Your task to perform on an android device: Search for "jbl flip 4" on ebay, select the first entry, add it to the cart, then select checkout. Image 0: 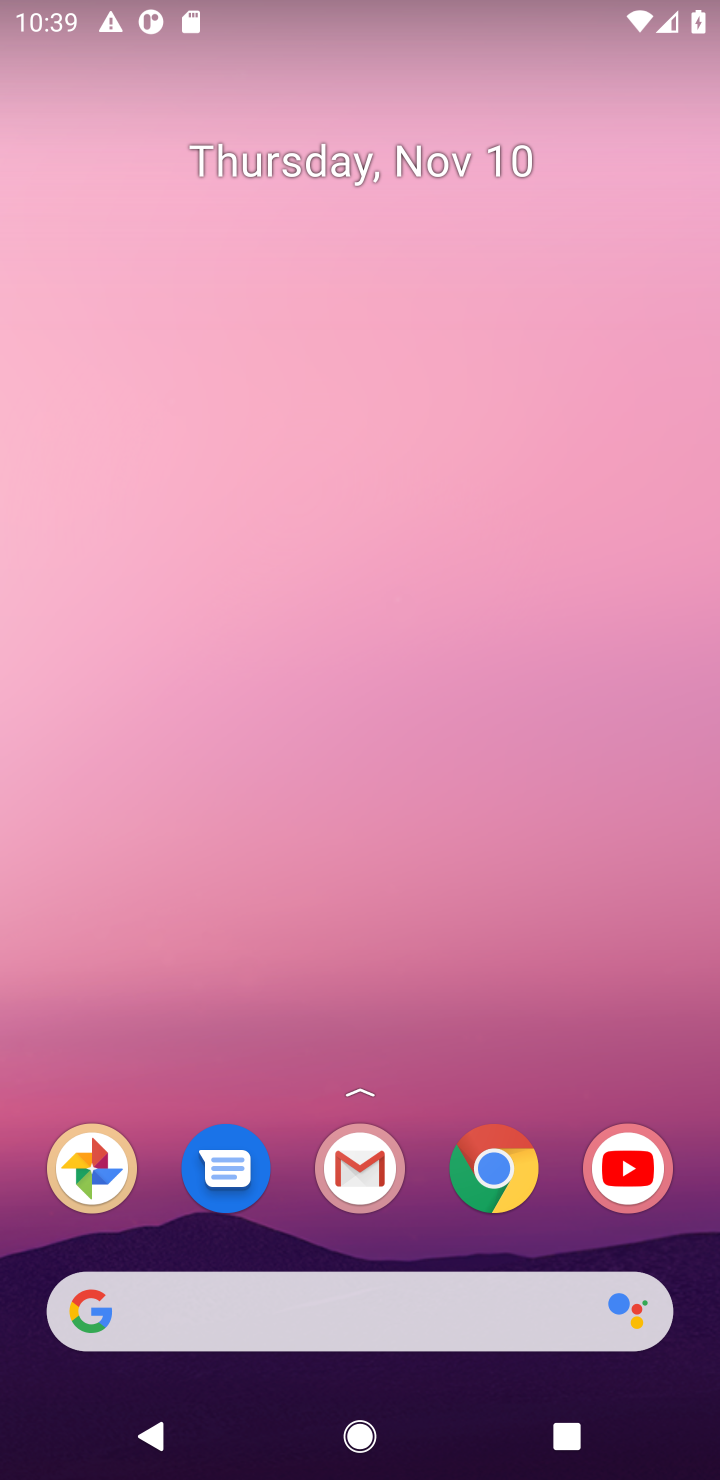
Step 0: click (477, 1169)
Your task to perform on an android device: Search for "jbl flip 4" on ebay, select the first entry, add it to the cart, then select checkout. Image 1: 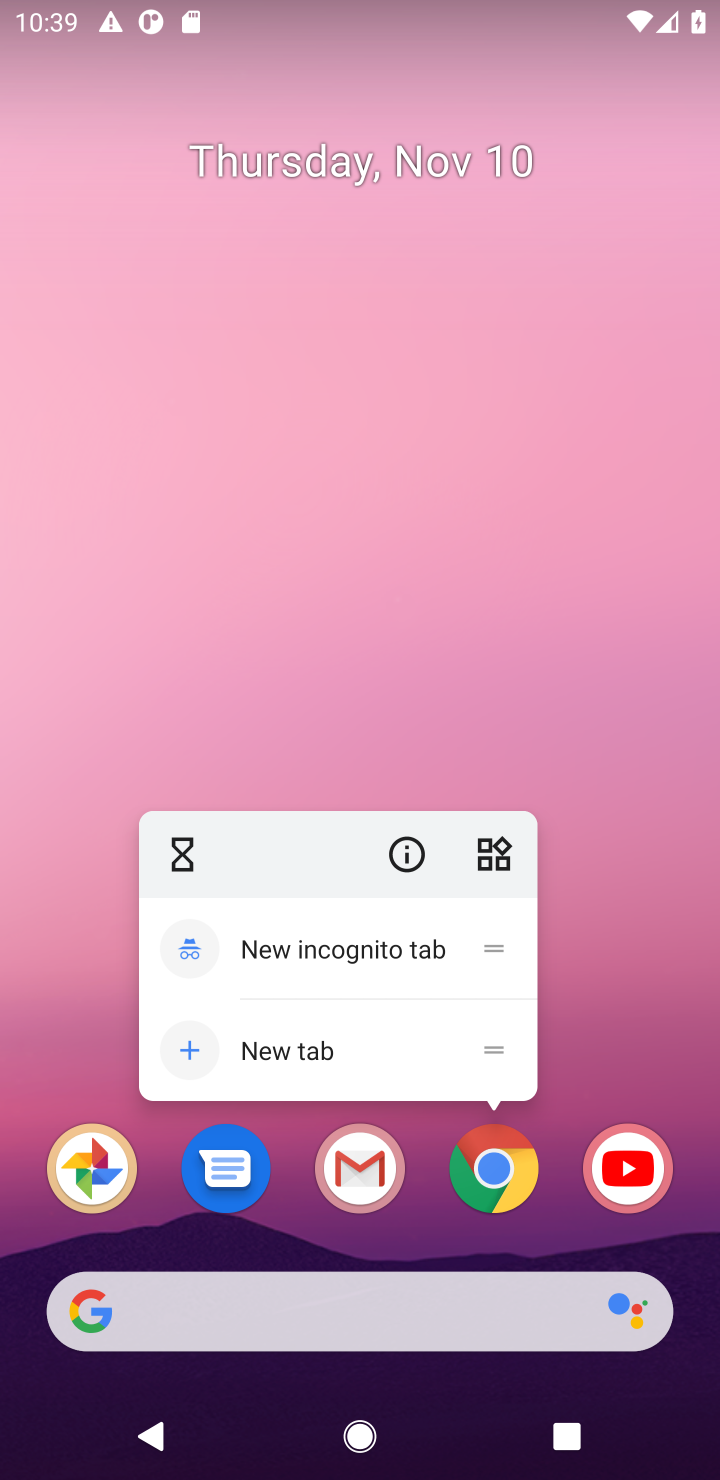
Step 1: click (489, 1180)
Your task to perform on an android device: Search for "jbl flip 4" on ebay, select the first entry, add it to the cart, then select checkout. Image 2: 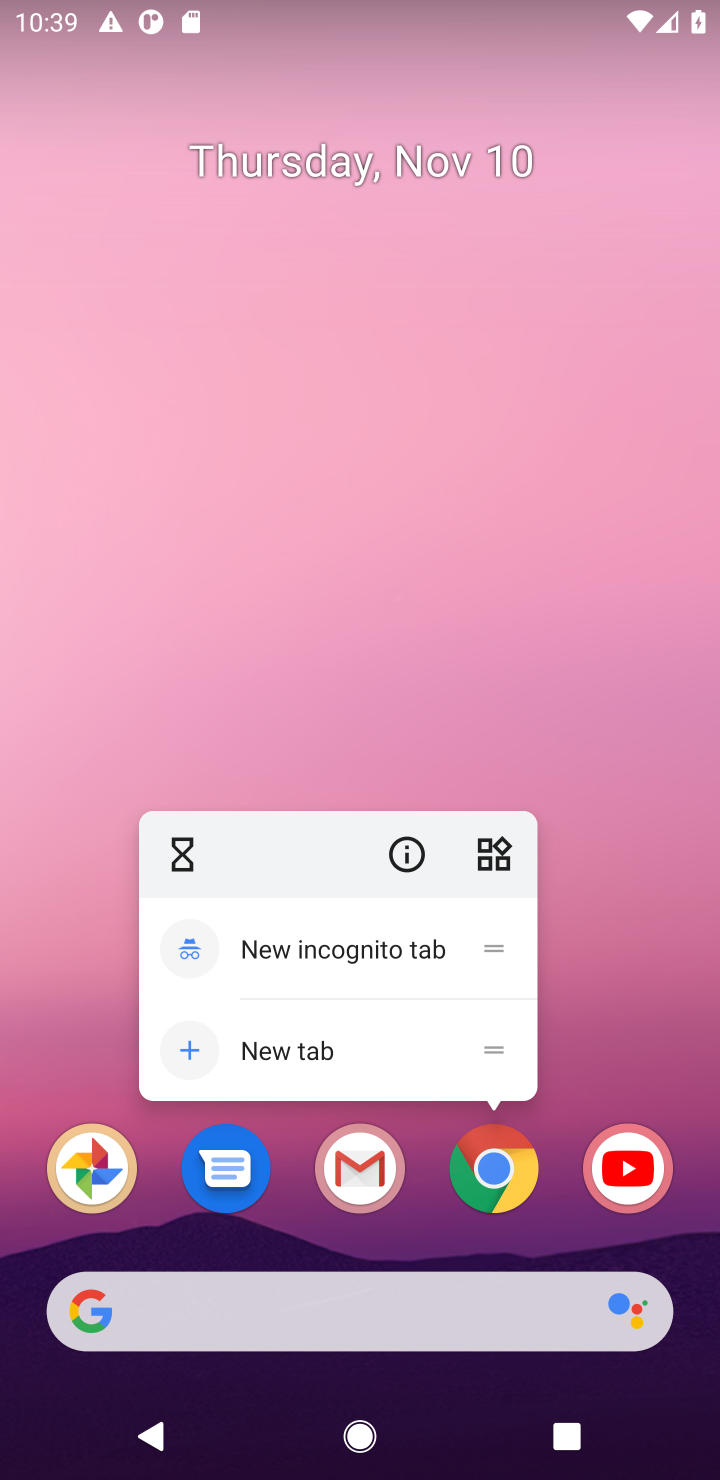
Step 2: click (496, 1174)
Your task to perform on an android device: Search for "jbl flip 4" on ebay, select the first entry, add it to the cart, then select checkout. Image 3: 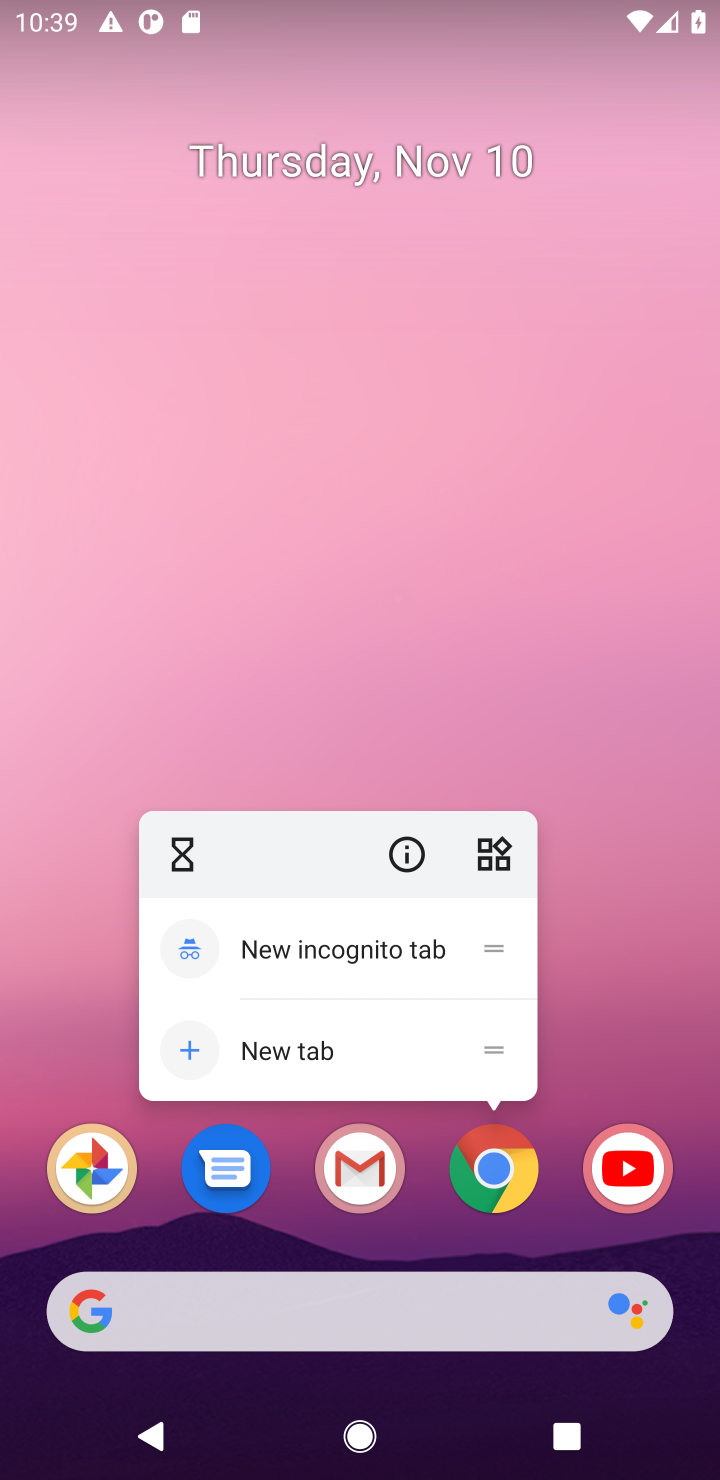
Step 3: click (496, 1174)
Your task to perform on an android device: Search for "jbl flip 4" on ebay, select the first entry, add it to the cart, then select checkout. Image 4: 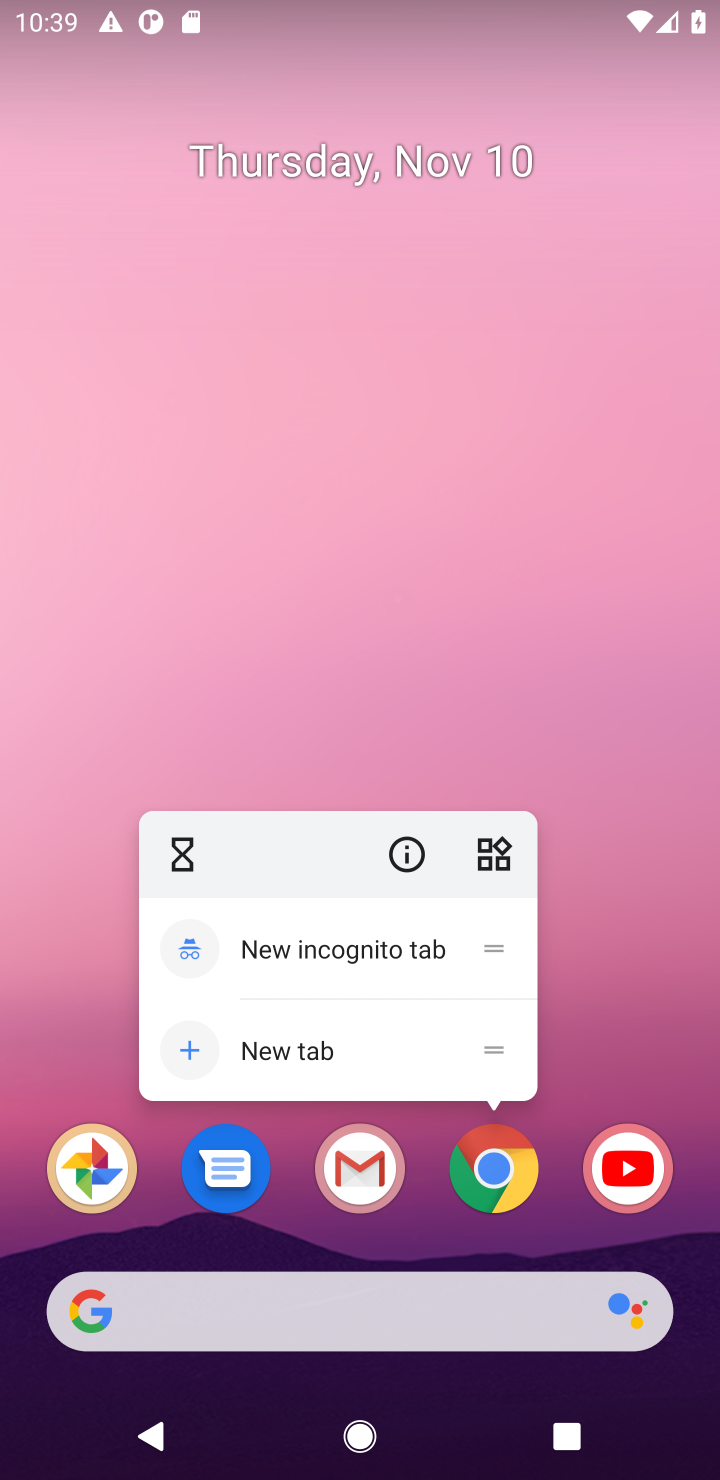
Step 4: click (496, 1174)
Your task to perform on an android device: Search for "jbl flip 4" on ebay, select the first entry, add it to the cart, then select checkout. Image 5: 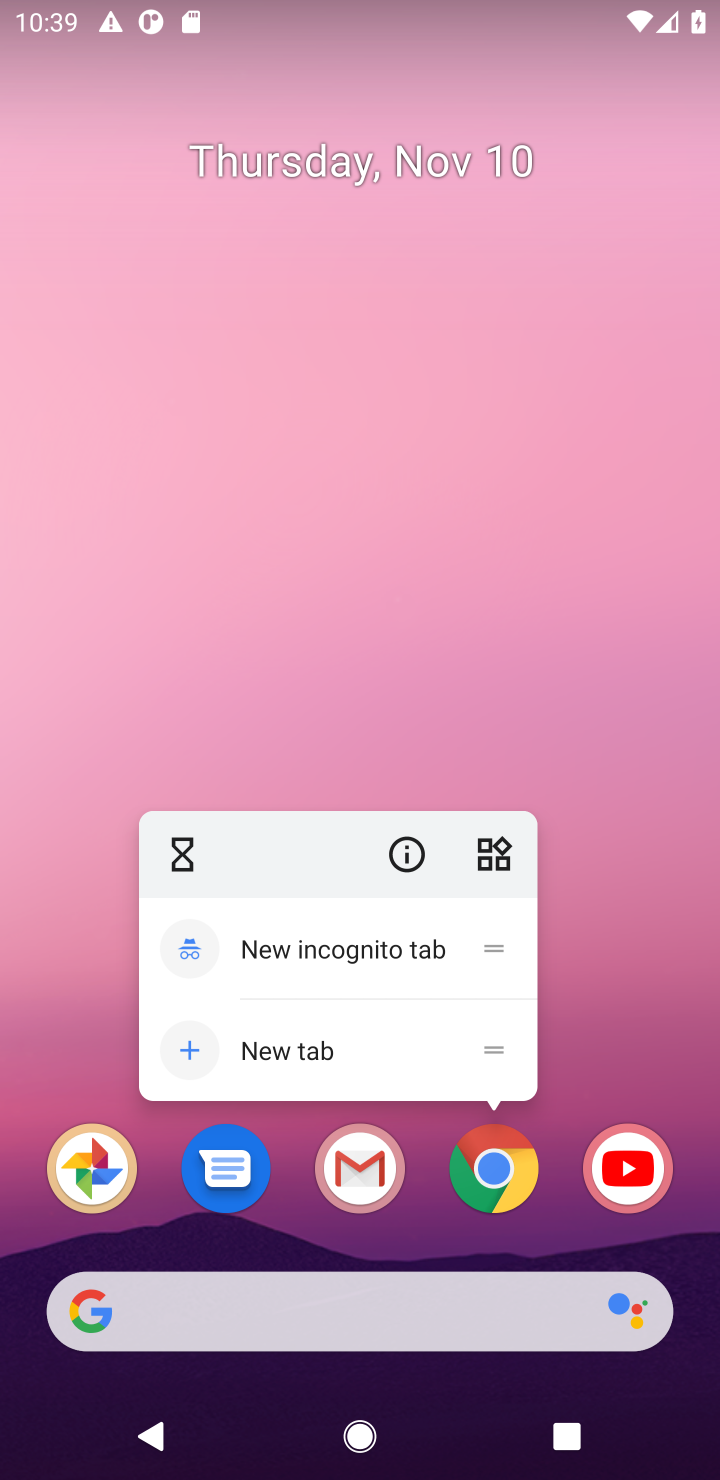
Step 5: click (644, 918)
Your task to perform on an android device: Search for "jbl flip 4" on ebay, select the first entry, add it to the cart, then select checkout. Image 6: 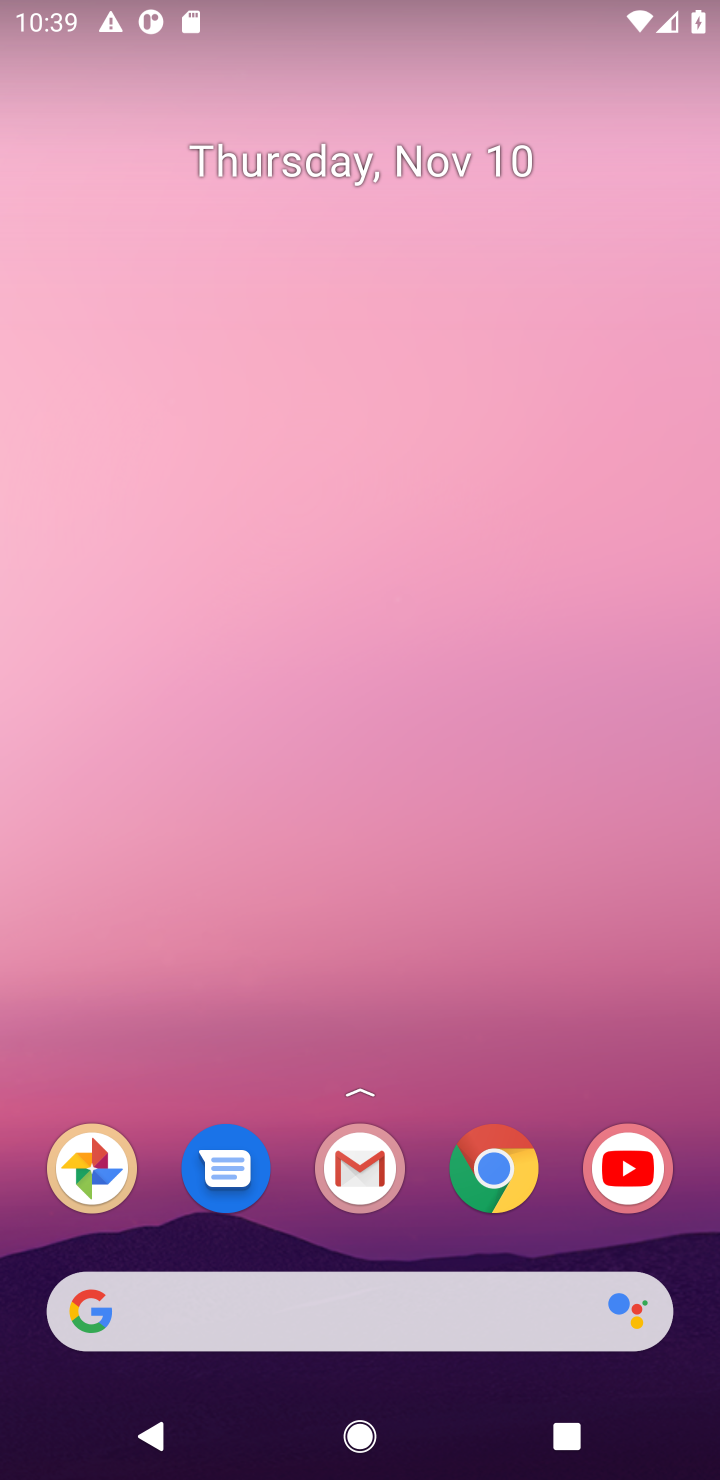
Step 6: click (496, 1183)
Your task to perform on an android device: Search for "jbl flip 4" on ebay, select the first entry, add it to the cart, then select checkout. Image 7: 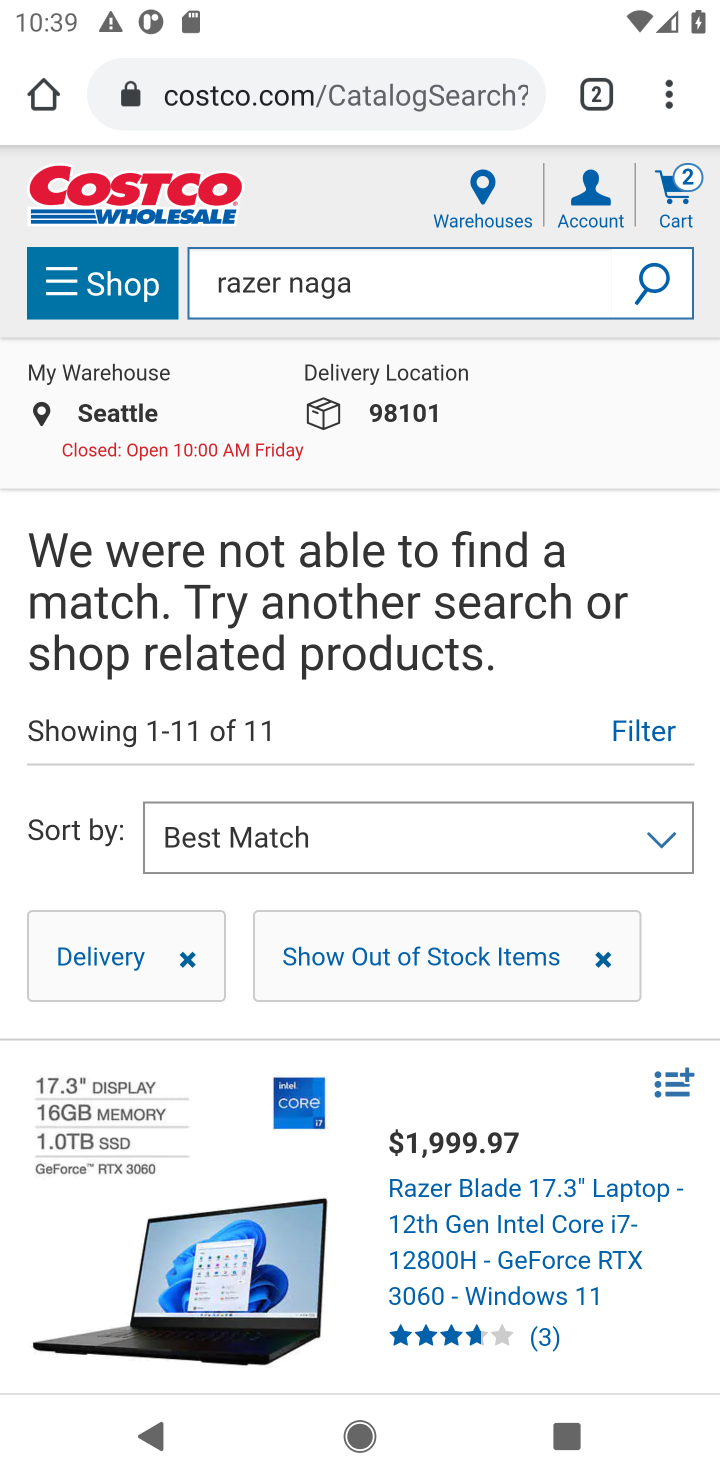
Step 7: click (279, 109)
Your task to perform on an android device: Search for "jbl flip 4" on ebay, select the first entry, add it to the cart, then select checkout. Image 8: 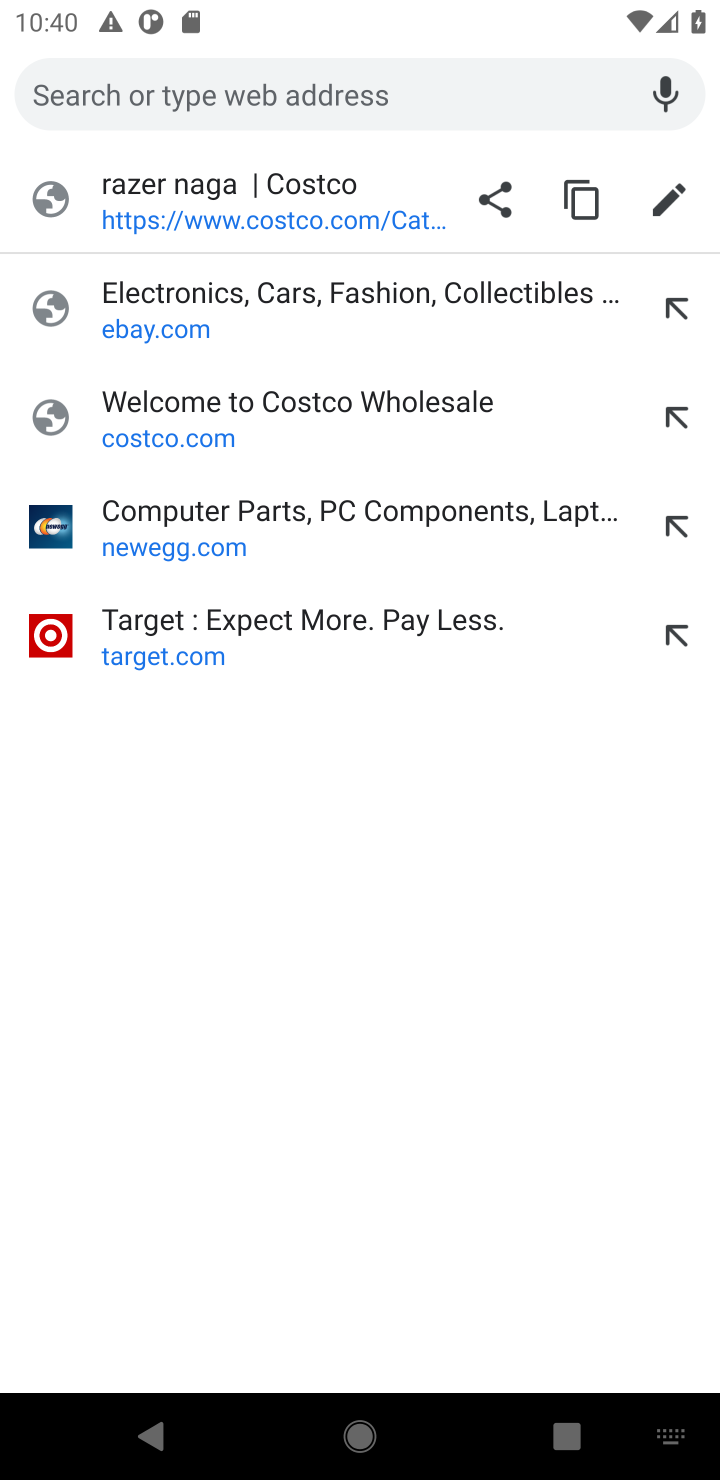
Step 8: click (149, 323)
Your task to perform on an android device: Search for "jbl flip 4" on ebay, select the first entry, add it to the cart, then select checkout. Image 9: 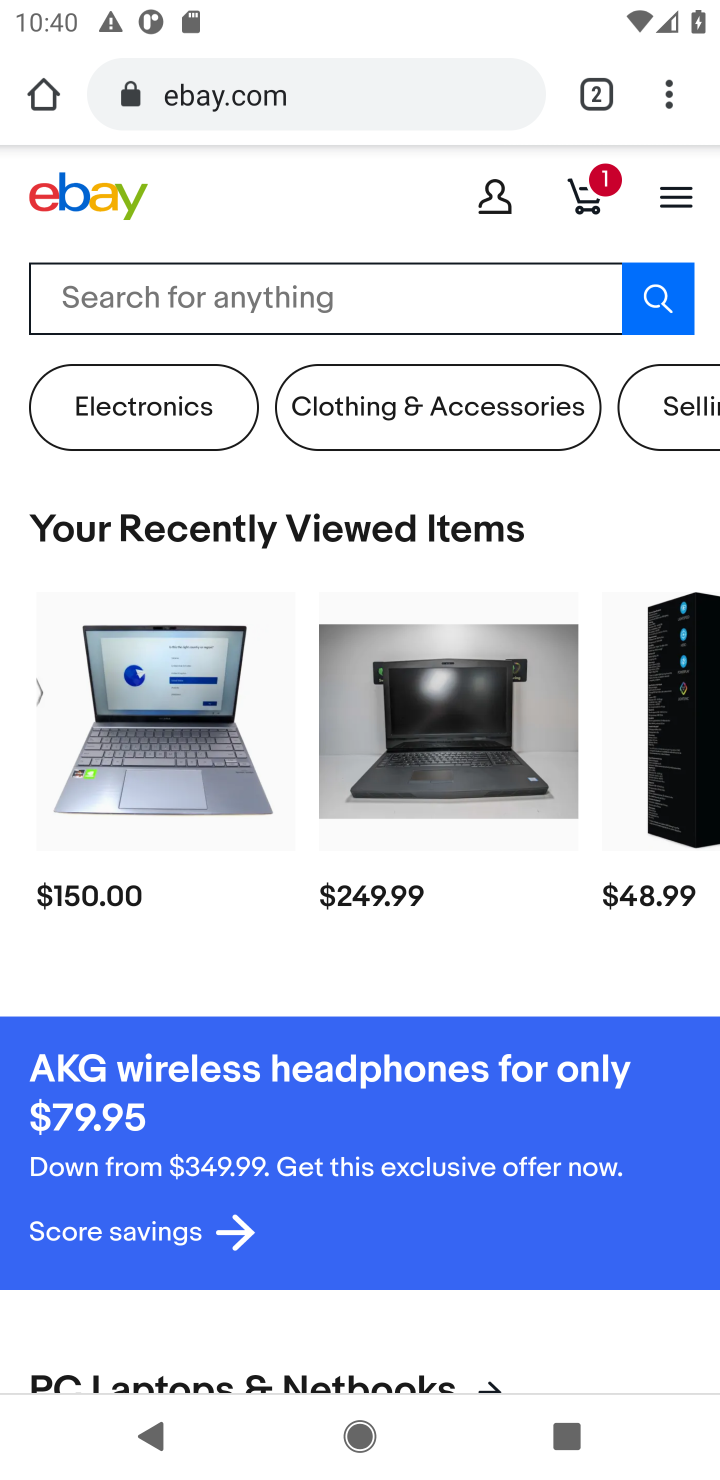
Step 9: click (166, 304)
Your task to perform on an android device: Search for "jbl flip 4" on ebay, select the first entry, add it to the cart, then select checkout. Image 10: 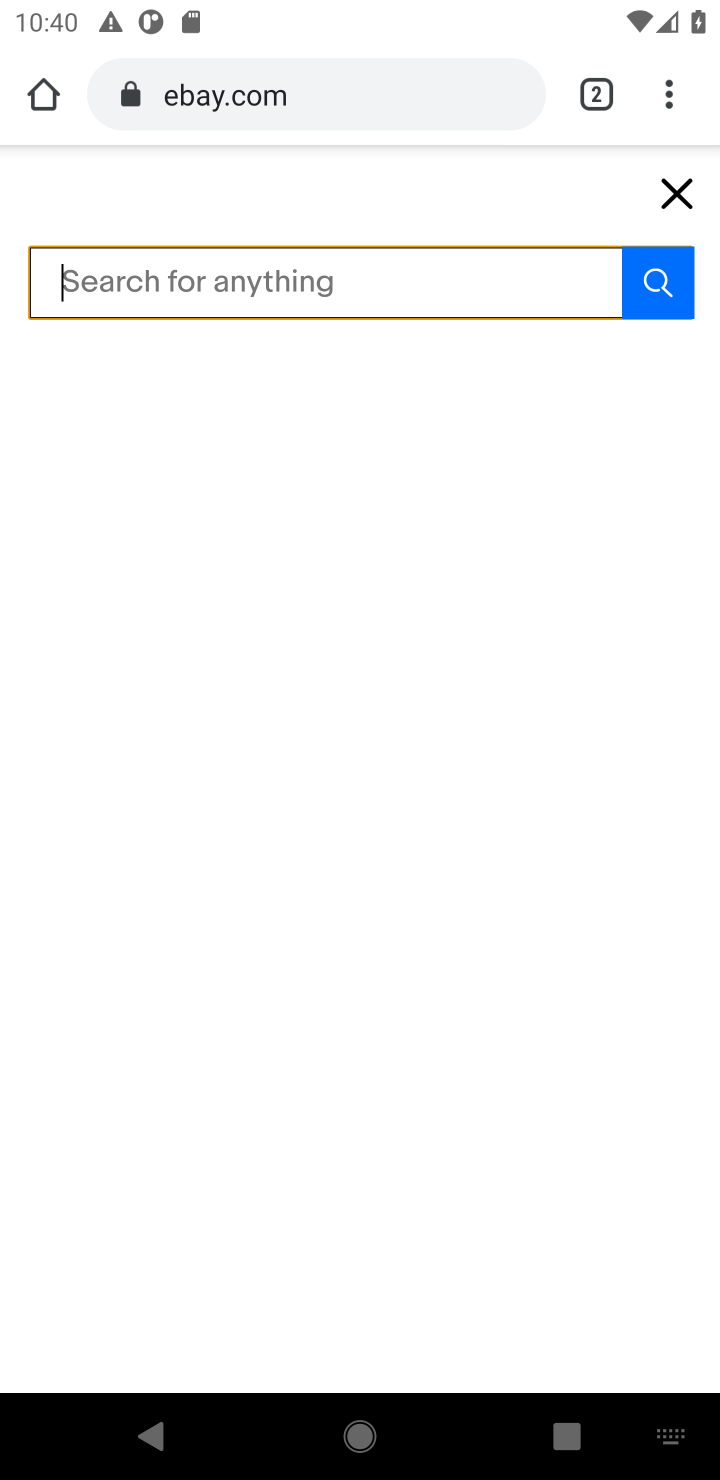
Step 10: type "jbl flip 4"
Your task to perform on an android device: Search for "jbl flip 4" on ebay, select the first entry, add it to the cart, then select checkout. Image 11: 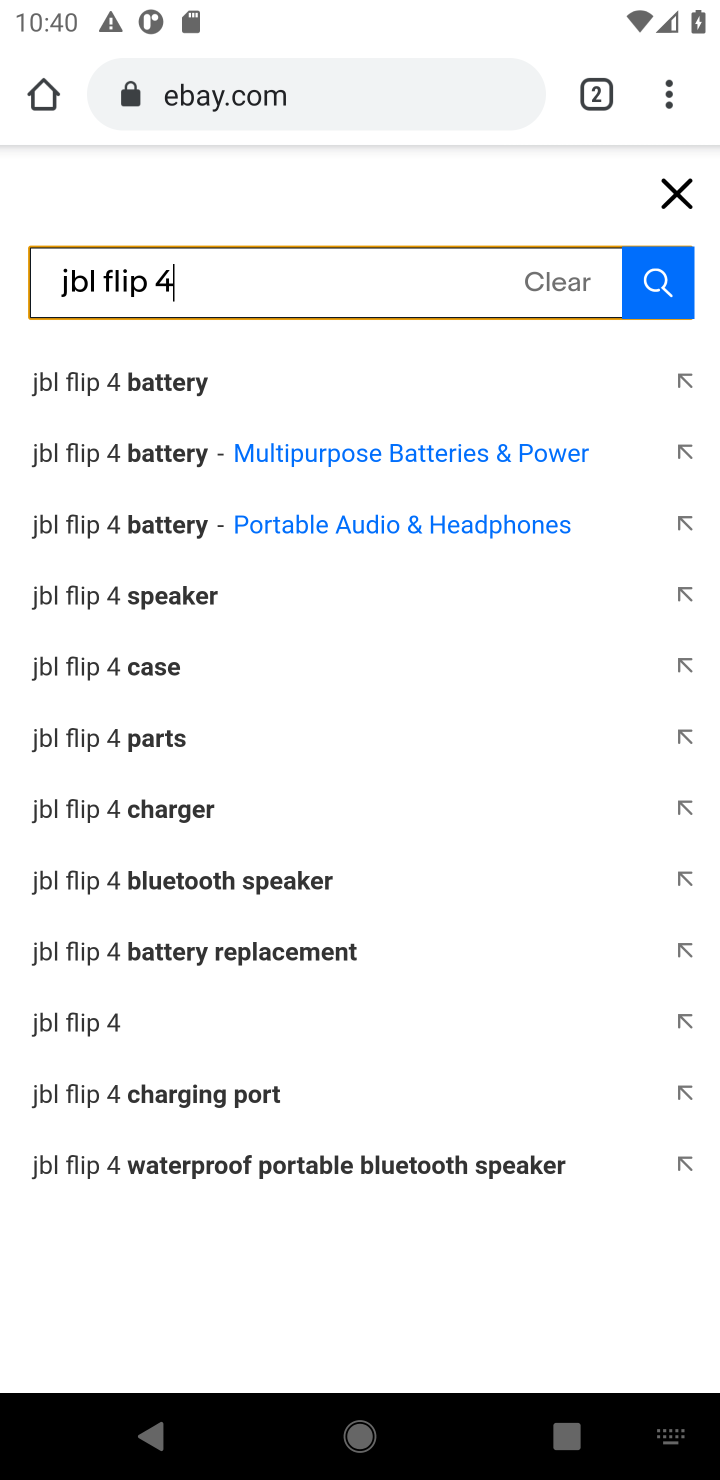
Step 11: click (79, 1026)
Your task to perform on an android device: Search for "jbl flip 4" on ebay, select the first entry, add it to the cart, then select checkout. Image 12: 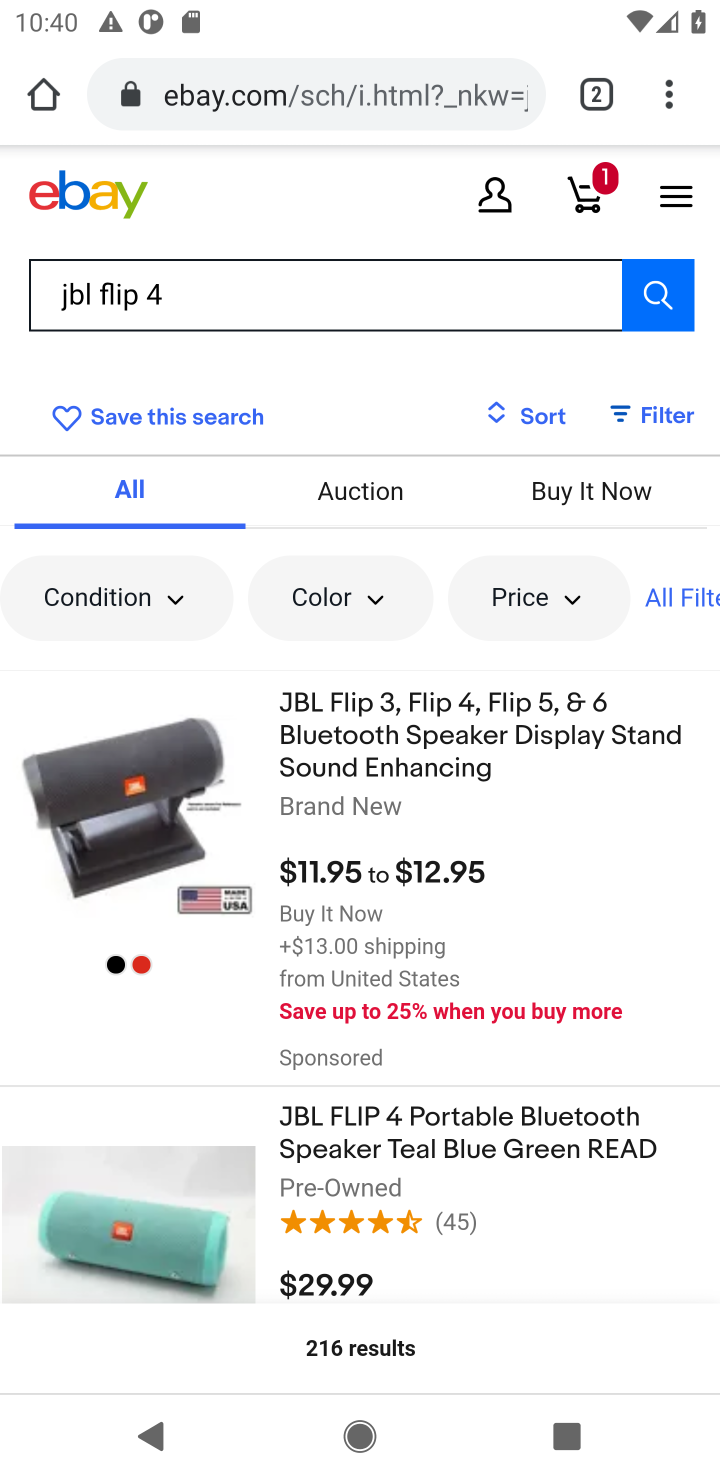
Step 12: click (120, 781)
Your task to perform on an android device: Search for "jbl flip 4" on ebay, select the first entry, add it to the cart, then select checkout. Image 13: 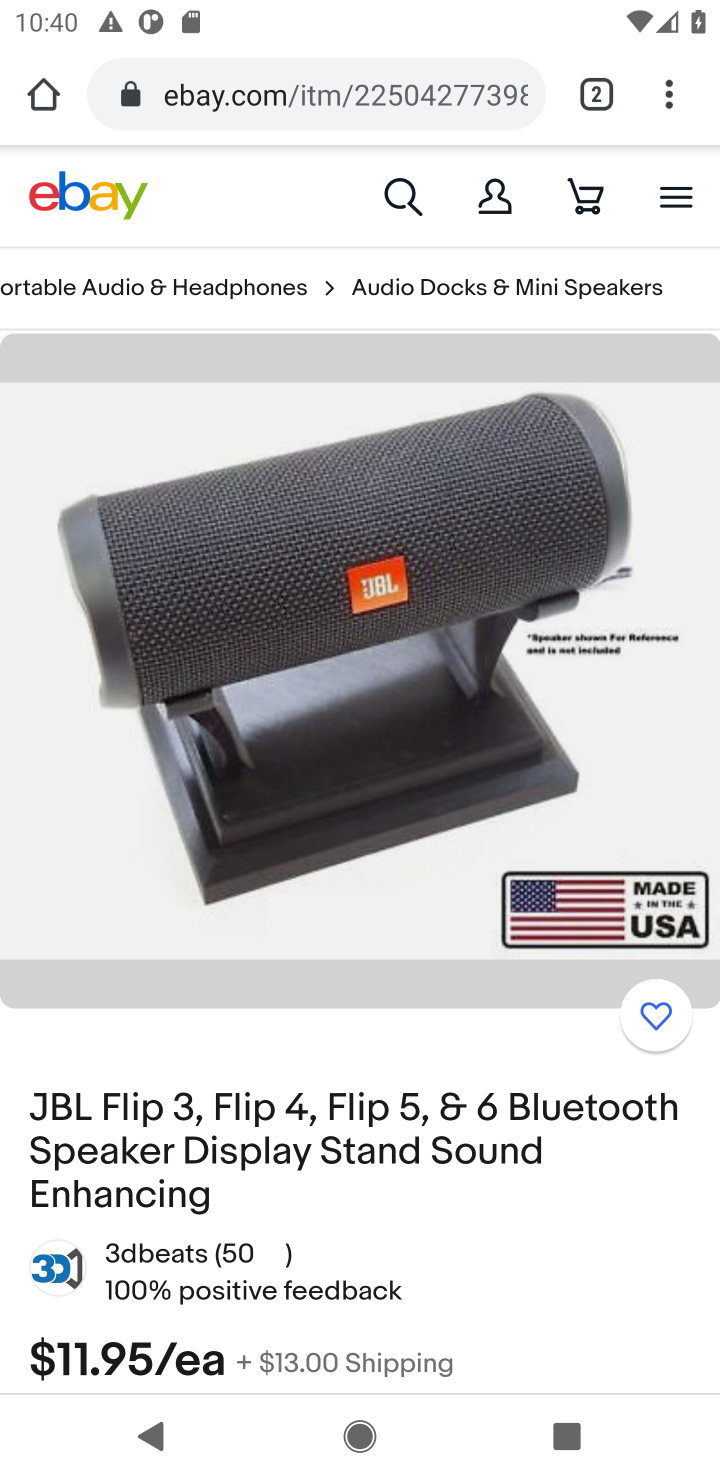
Step 13: drag from (319, 1067) to (288, 591)
Your task to perform on an android device: Search for "jbl flip 4" on ebay, select the first entry, add it to the cart, then select checkout. Image 14: 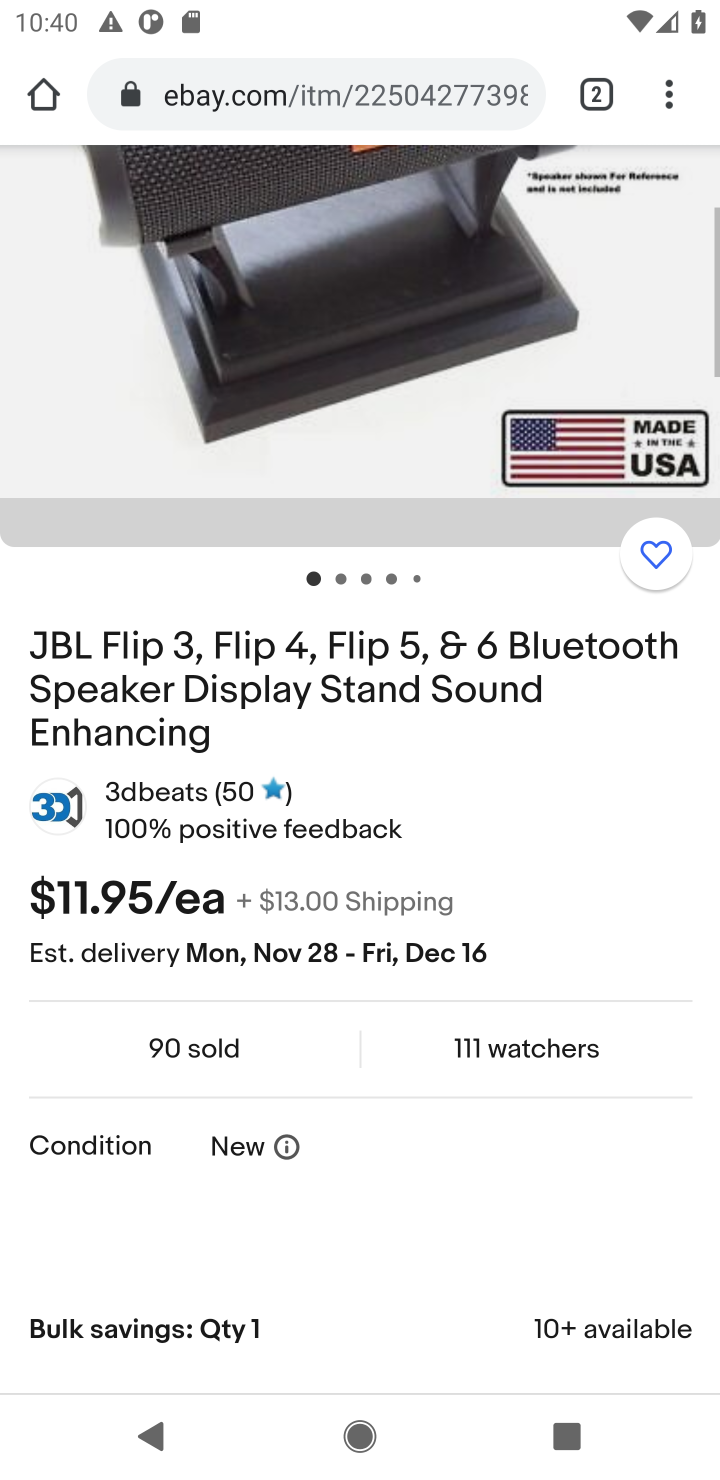
Step 14: drag from (309, 1022) to (289, 473)
Your task to perform on an android device: Search for "jbl flip 4" on ebay, select the first entry, add it to the cart, then select checkout. Image 15: 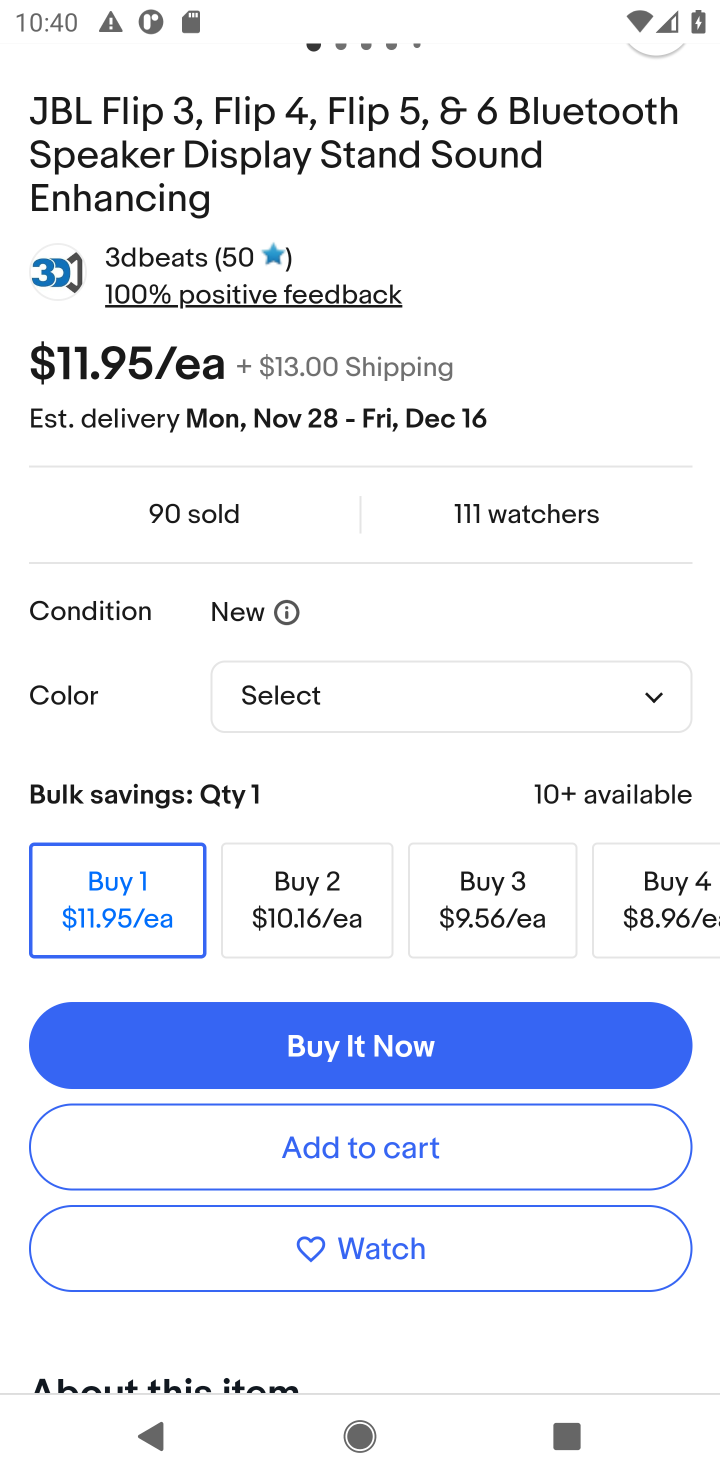
Step 15: drag from (569, 891) to (278, 869)
Your task to perform on an android device: Search for "jbl flip 4" on ebay, select the first entry, add it to the cart, then select checkout. Image 16: 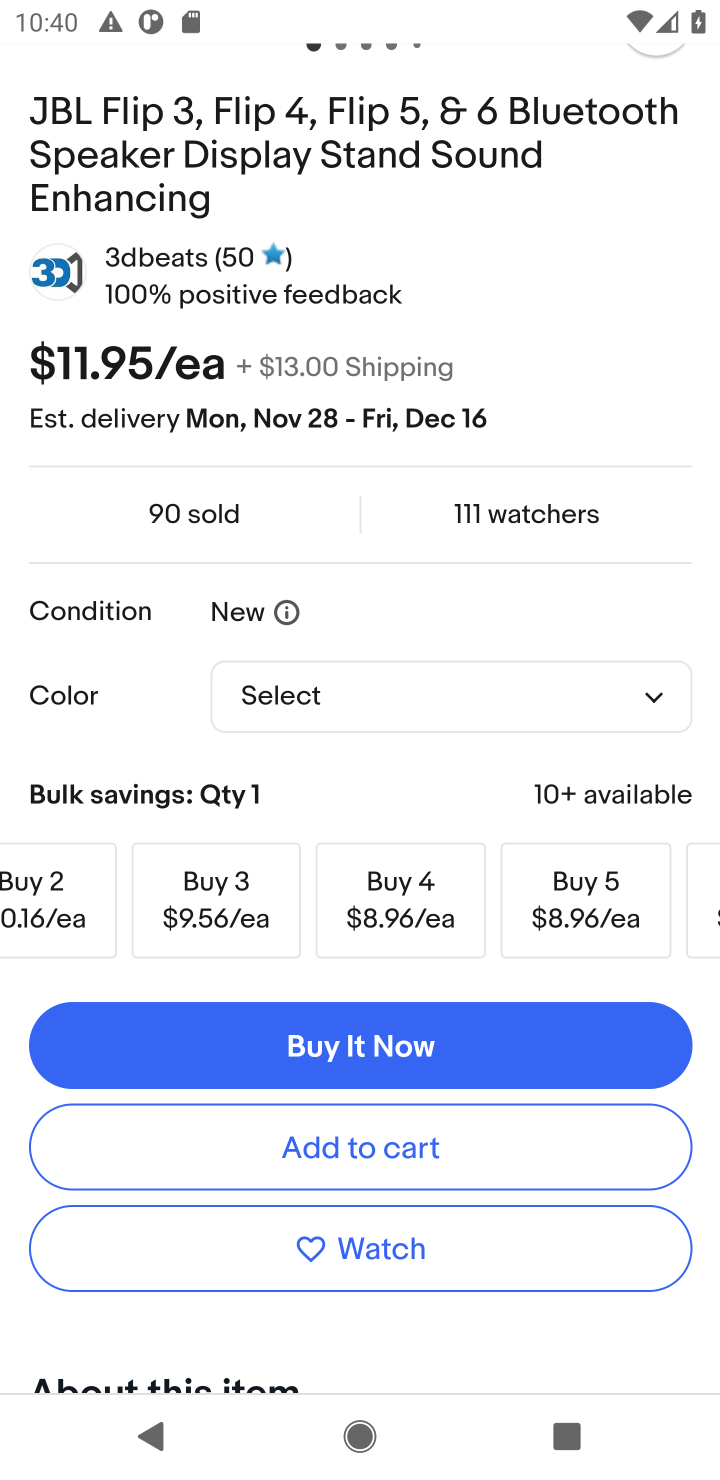
Step 16: drag from (271, 877) to (714, 868)
Your task to perform on an android device: Search for "jbl flip 4" on ebay, select the first entry, add it to the cart, then select checkout. Image 17: 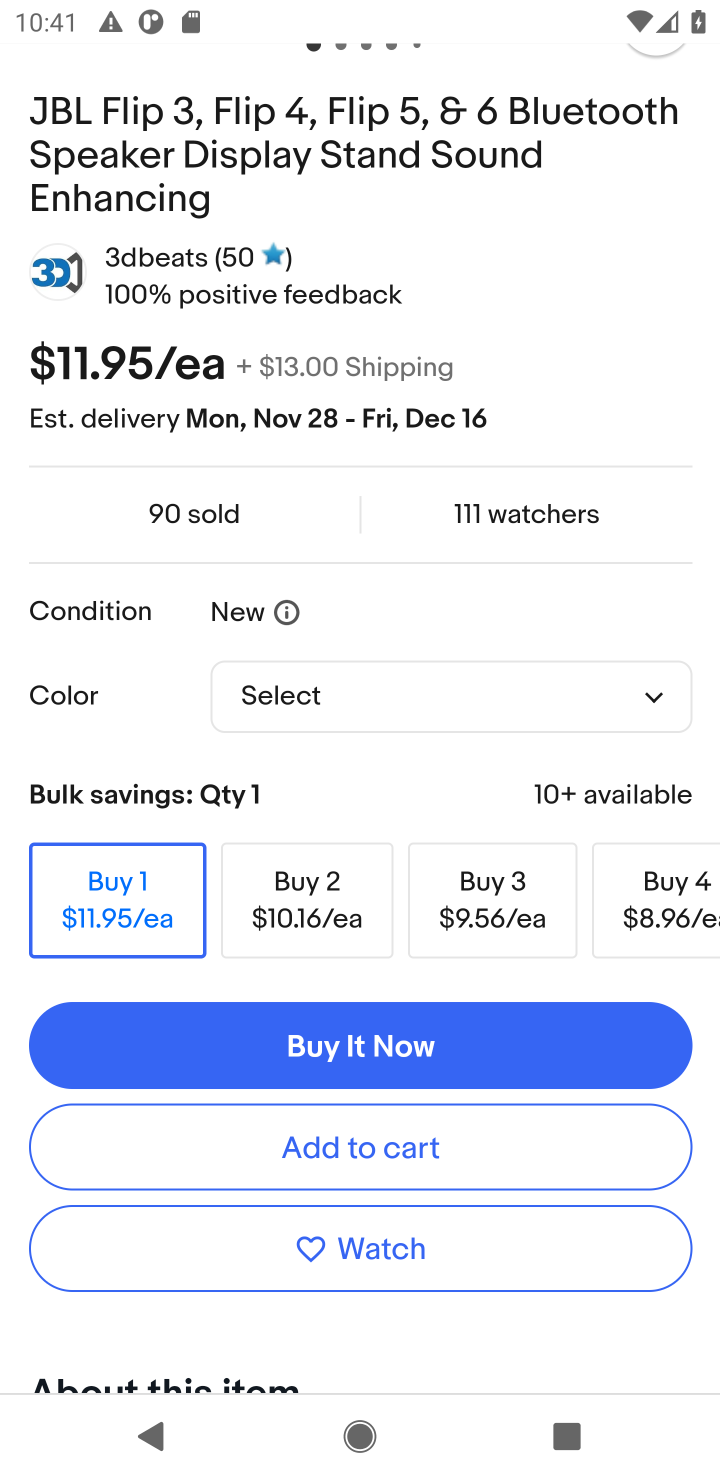
Step 17: click (389, 1134)
Your task to perform on an android device: Search for "jbl flip 4" on ebay, select the first entry, add it to the cart, then select checkout. Image 18: 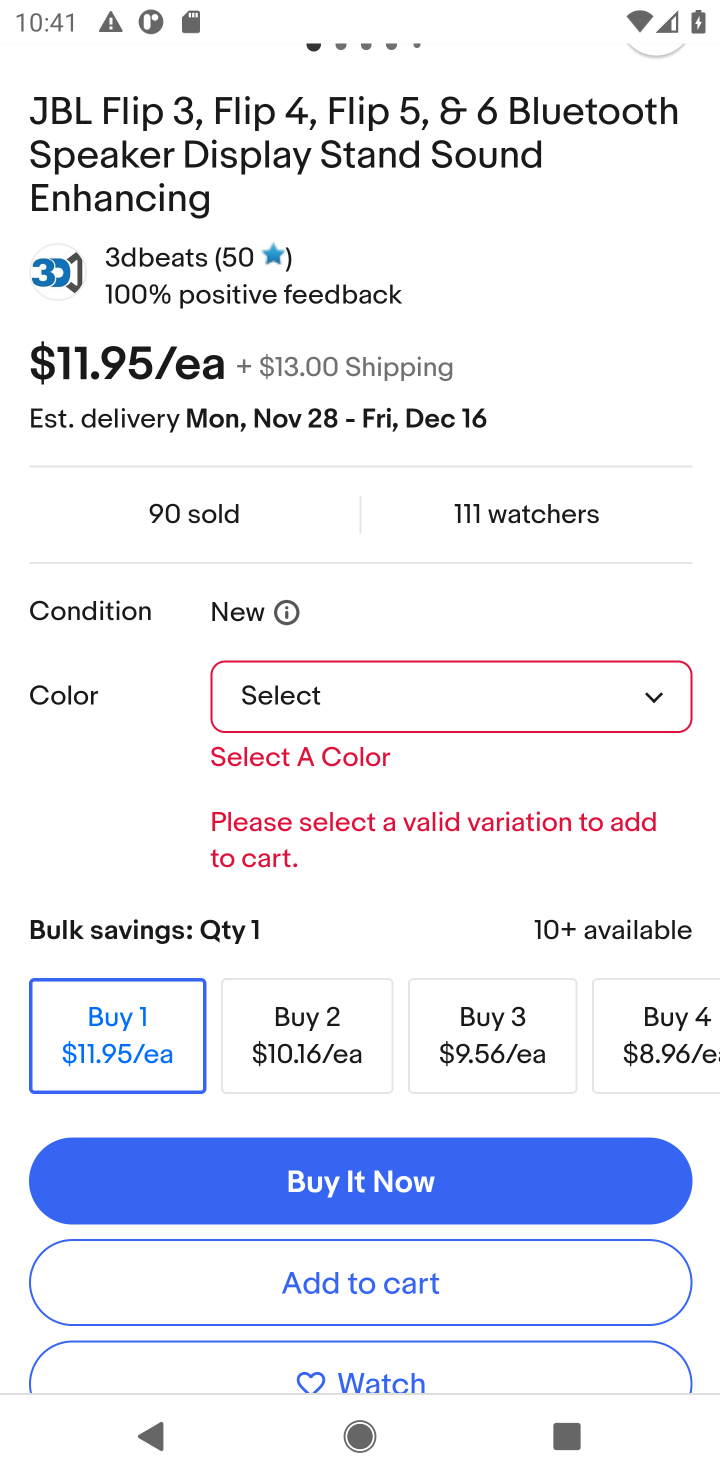
Step 18: click (655, 709)
Your task to perform on an android device: Search for "jbl flip 4" on ebay, select the first entry, add it to the cart, then select checkout. Image 19: 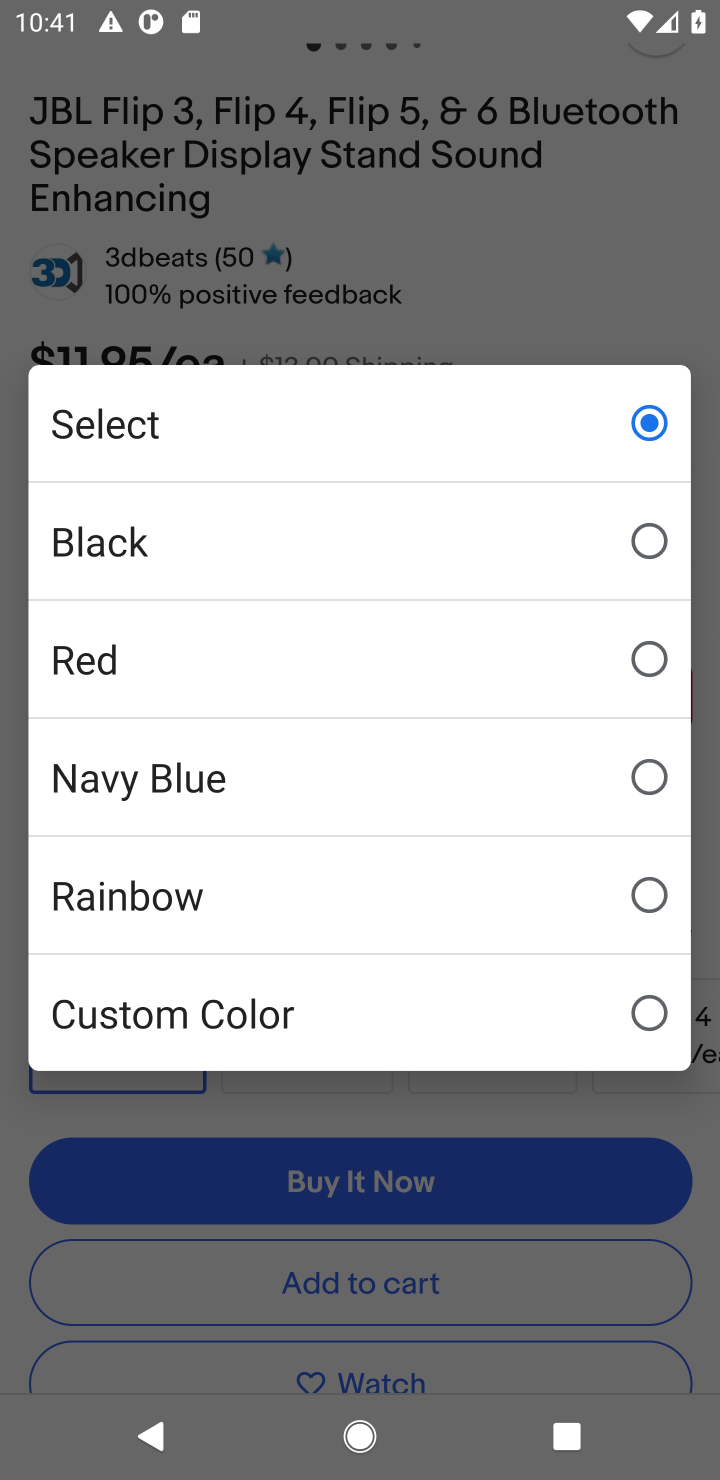
Step 19: click (136, 670)
Your task to perform on an android device: Search for "jbl flip 4" on ebay, select the first entry, add it to the cart, then select checkout. Image 20: 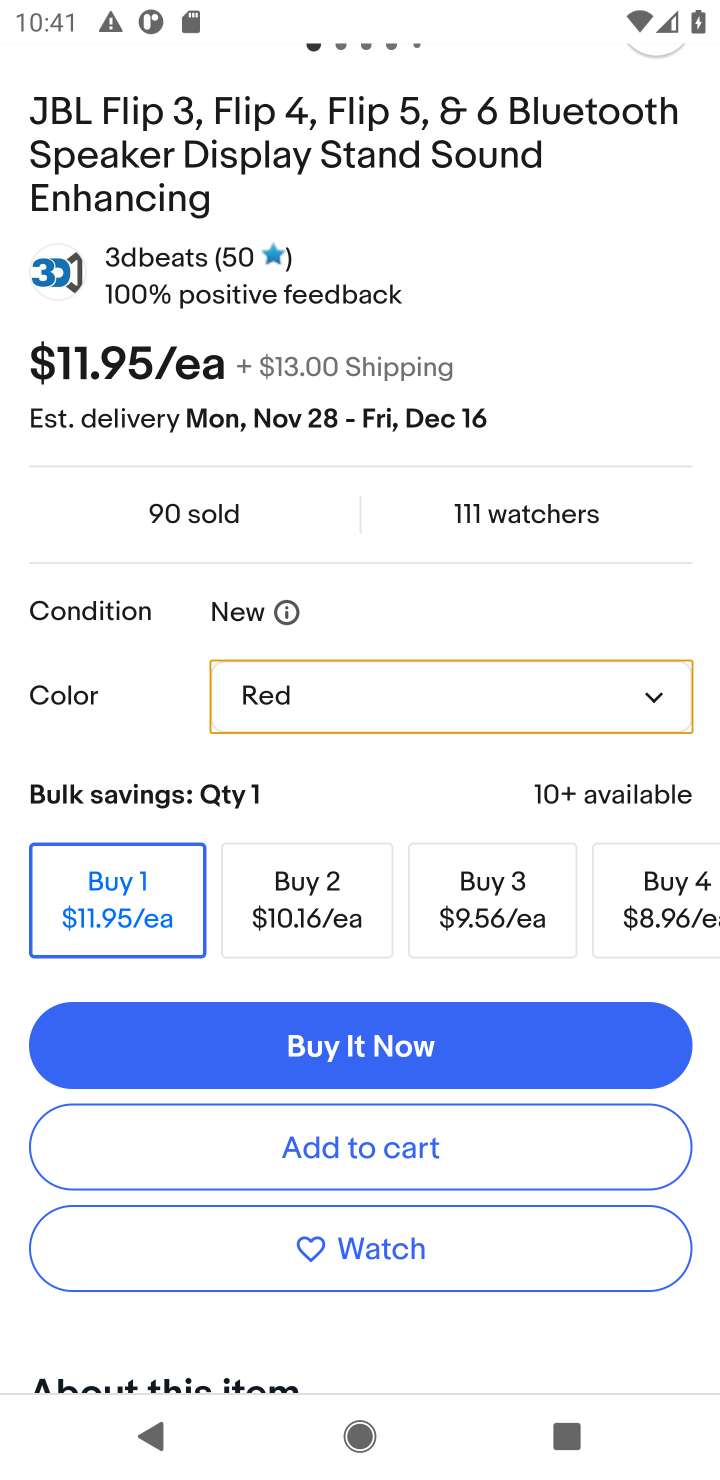
Step 20: click (286, 1137)
Your task to perform on an android device: Search for "jbl flip 4" on ebay, select the first entry, add it to the cart, then select checkout. Image 21: 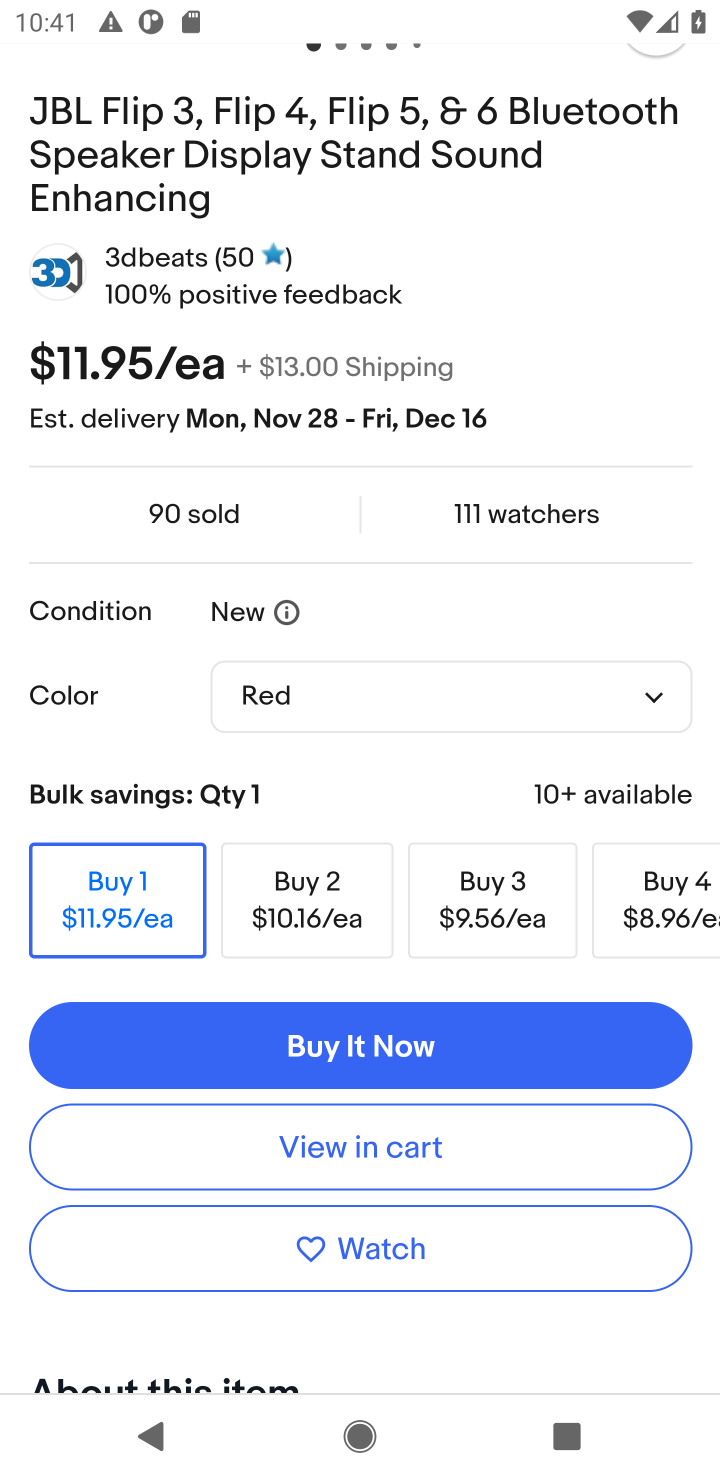
Step 21: click (286, 1137)
Your task to perform on an android device: Search for "jbl flip 4" on ebay, select the first entry, add it to the cart, then select checkout. Image 22: 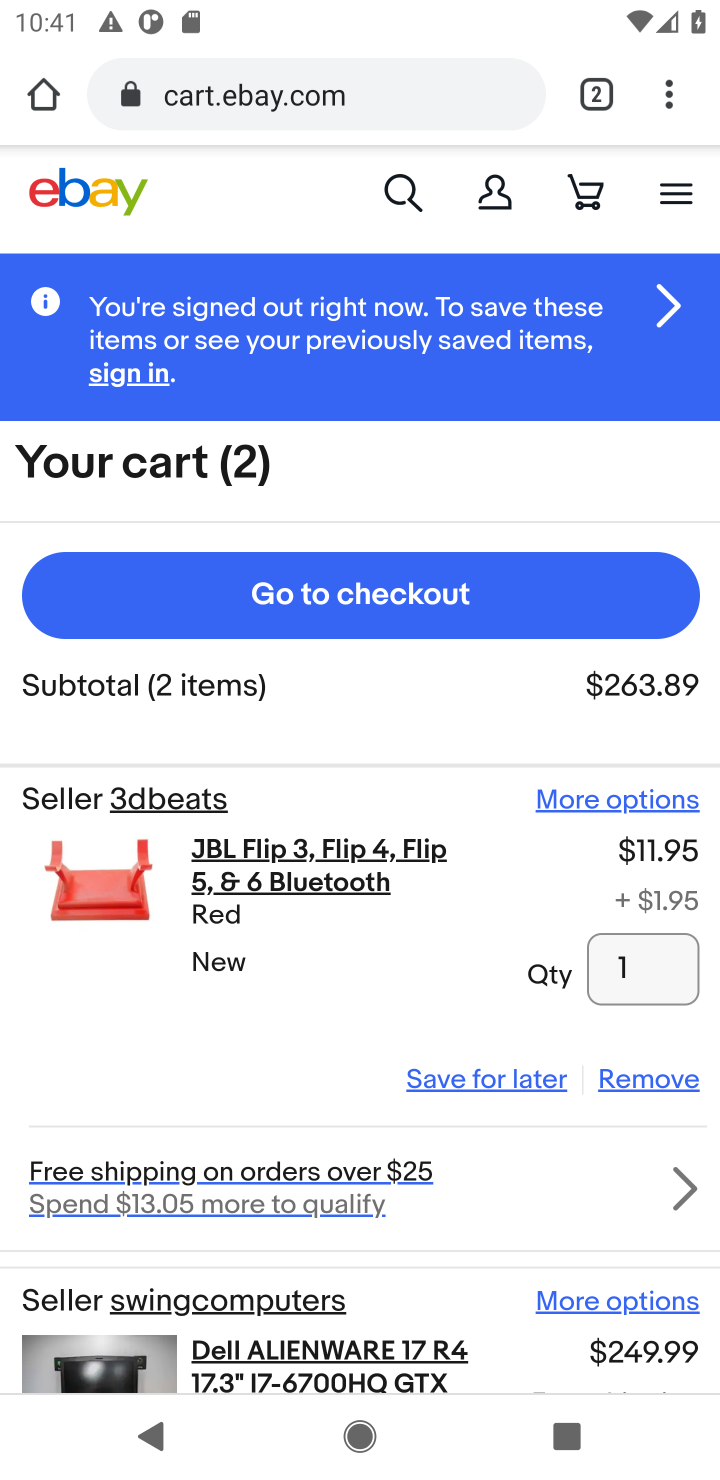
Step 22: click (391, 612)
Your task to perform on an android device: Search for "jbl flip 4" on ebay, select the first entry, add it to the cart, then select checkout. Image 23: 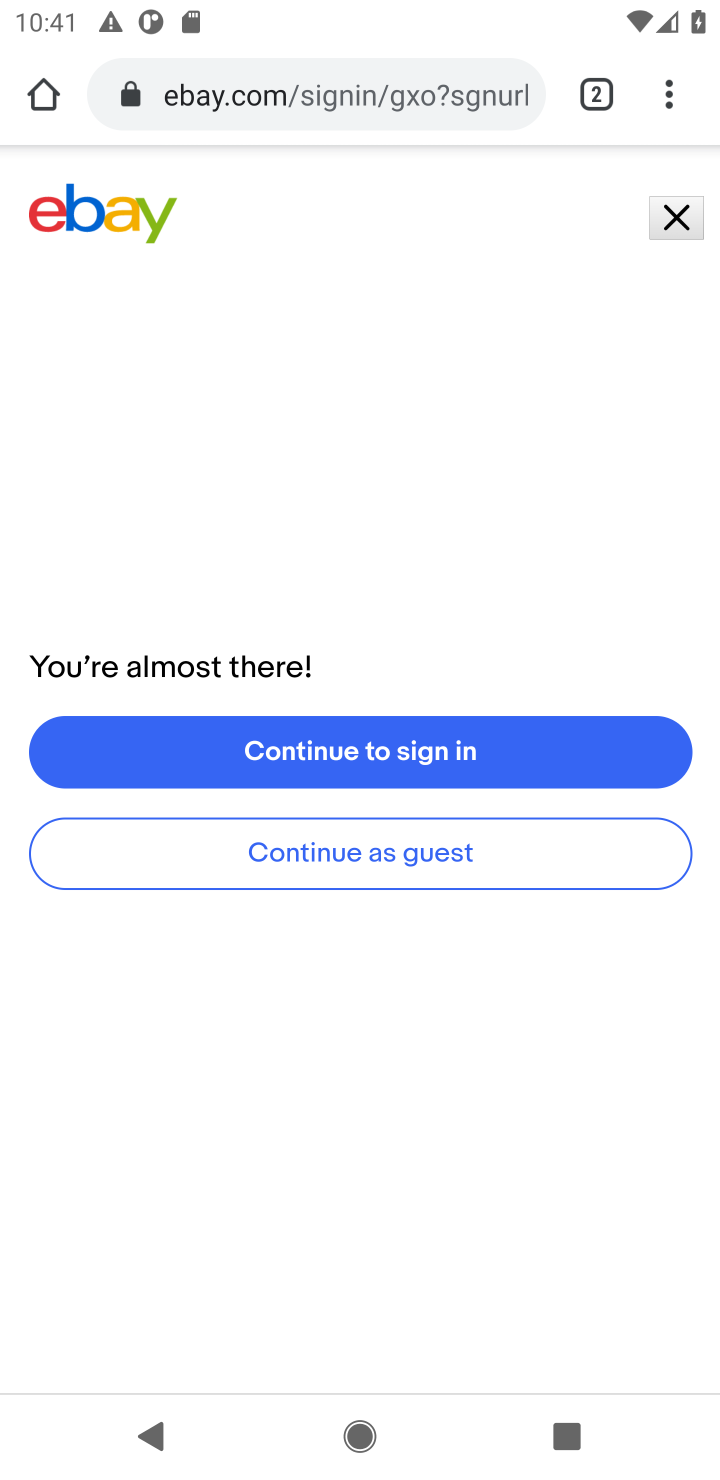
Step 23: task complete